Your task to perform on an android device: Go to calendar. Show me events next week Image 0: 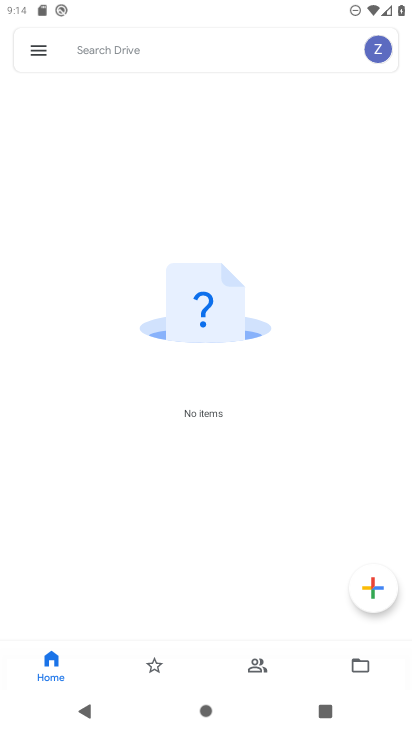
Step 0: press home button
Your task to perform on an android device: Go to calendar. Show me events next week Image 1: 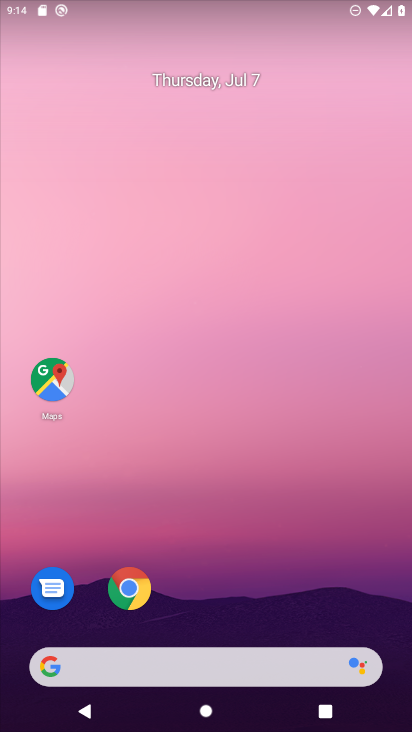
Step 1: click (207, 73)
Your task to perform on an android device: Go to calendar. Show me events next week Image 2: 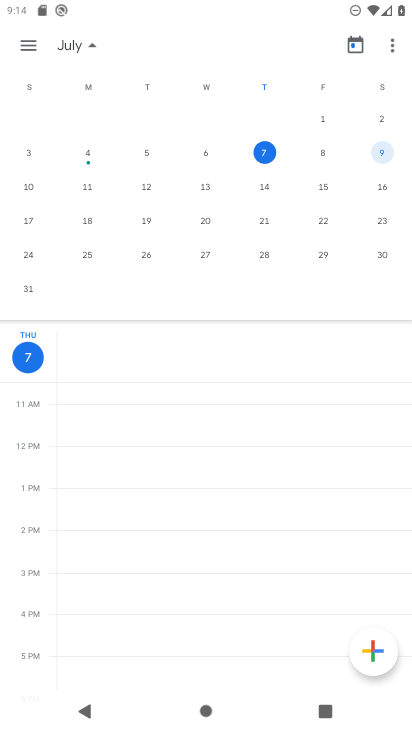
Step 2: click (24, 47)
Your task to perform on an android device: Go to calendar. Show me events next week Image 3: 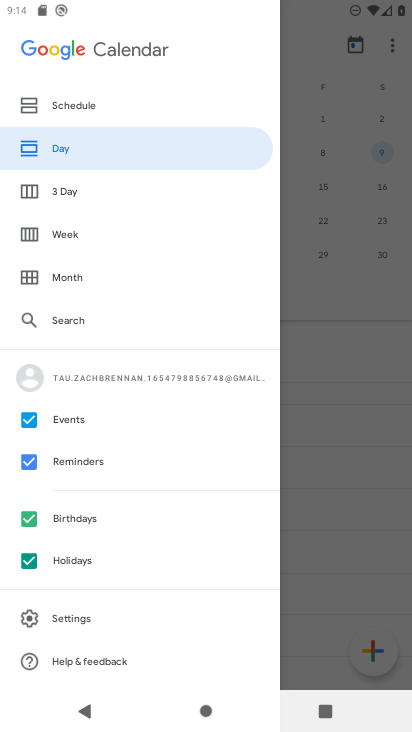
Step 3: click (114, 242)
Your task to perform on an android device: Go to calendar. Show me events next week Image 4: 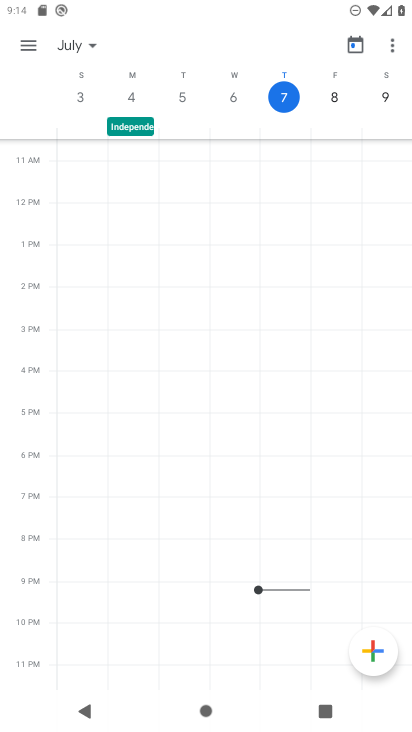
Step 4: click (31, 40)
Your task to perform on an android device: Go to calendar. Show me events next week Image 5: 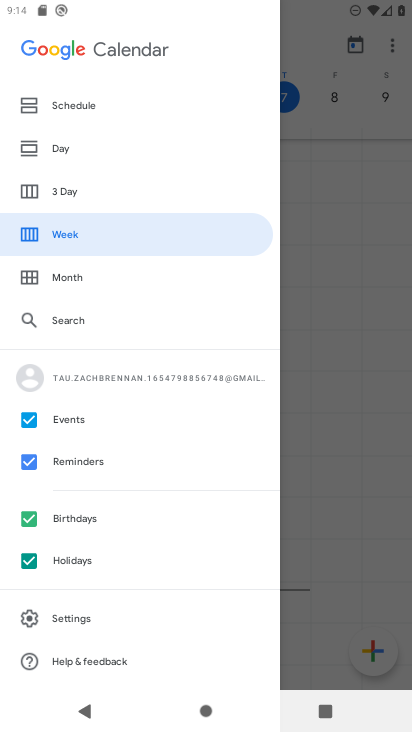
Step 5: click (63, 564)
Your task to perform on an android device: Go to calendar. Show me events next week Image 6: 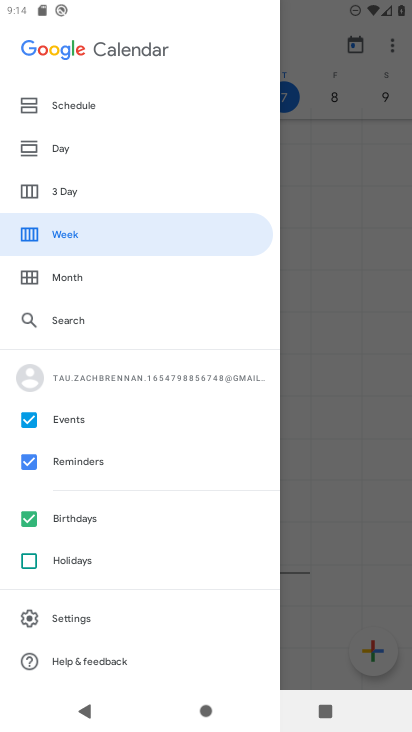
Step 6: click (28, 523)
Your task to perform on an android device: Go to calendar. Show me events next week Image 7: 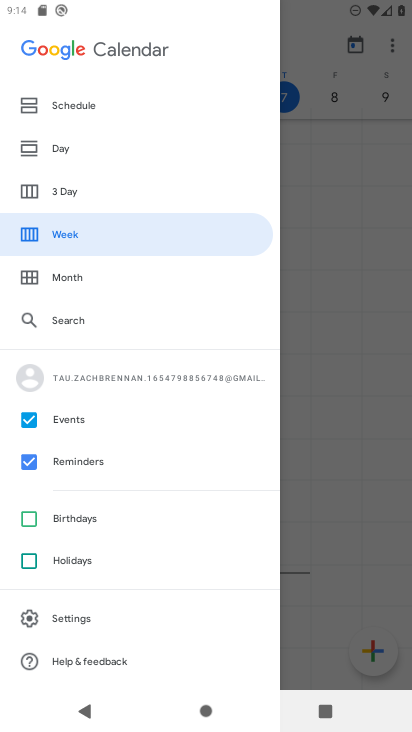
Step 7: click (28, 460)
Your task to perform on an android device: Go to calendar. Show me events next week Image 8: 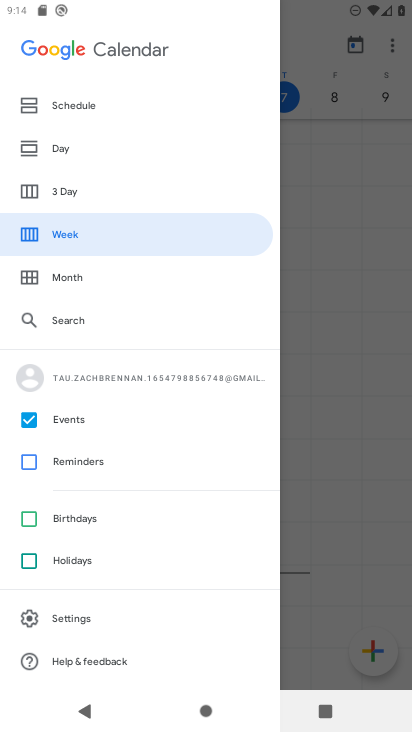
Step 8: click (358, 256)
Your task to perform on an android device: Go to calendar. Show me events next week Image 9: 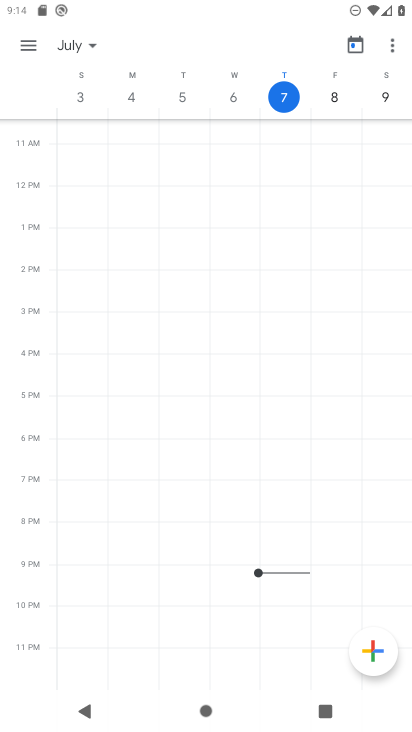
Step 9: task complete